Your task to perform on an android device: turn off location Image 0: 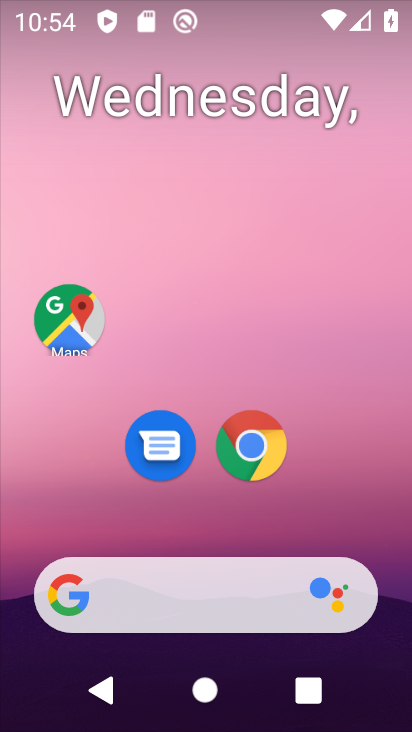
Step 0: drag from (354, 476) to (327, 96)
Your task to perform on an android device: turn off location Image 1: 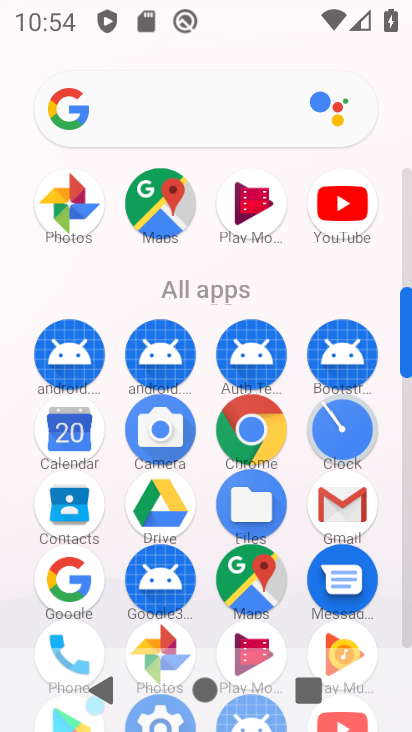
Step 1: drag from (382, 458) to (398, 305)
Your task to perform on an android device: turn off location Image 2: 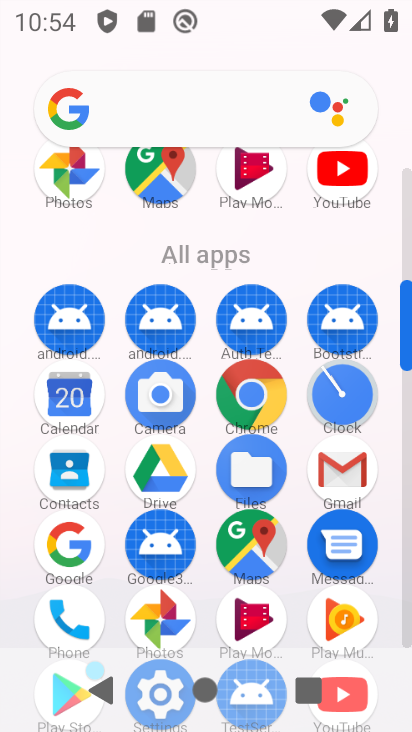
Step 2: drag from (375, 468) to (369, 197)
Your task to perform on an android device: turn off location Image 3: 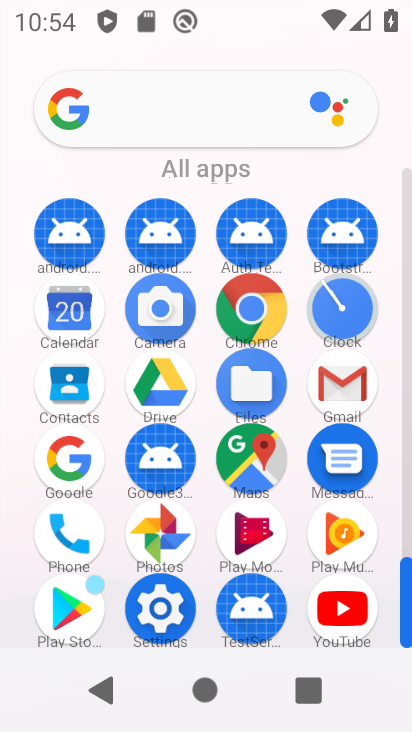
Step 3: click (173, 599)
Your task to perform on an android device: turn off location Image 4: 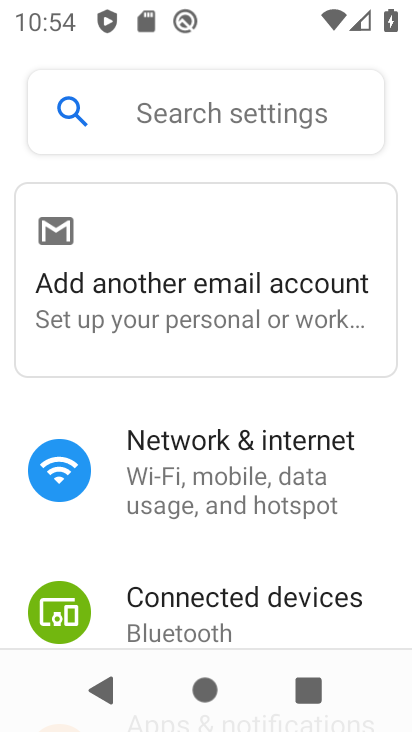
Step 4: drag from (221, 557) to (236, 241)
Your task to perform on an android device: turn off location Image 5: 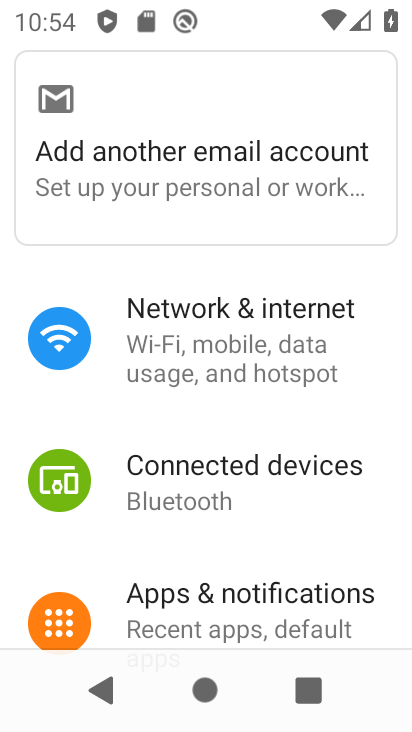
Step 5: drag from (212, 548) to (223, 281)
Your task to perform on an android device: turn off location Image 6: 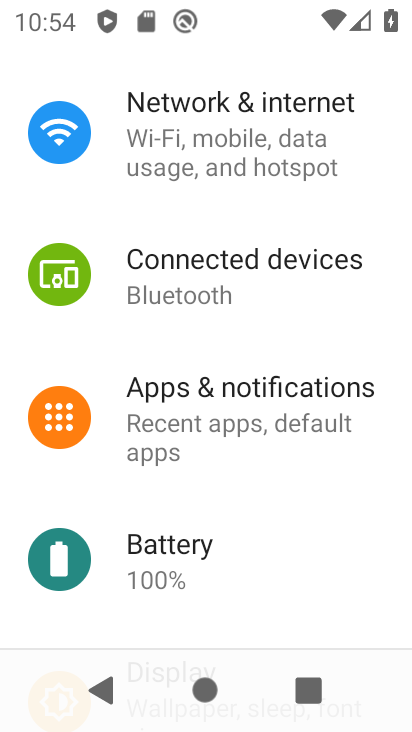
Step 6: drag from (234, 578) to (226, 254)
Your task to perform on an android device: turn off location Image 7: 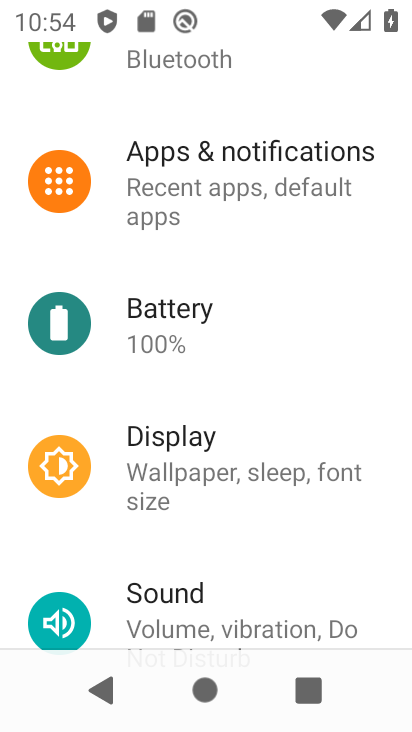
Step 7: drag from (224, 559) to (214, 278)
Your task to perform on an android device: turn off location Image 8: 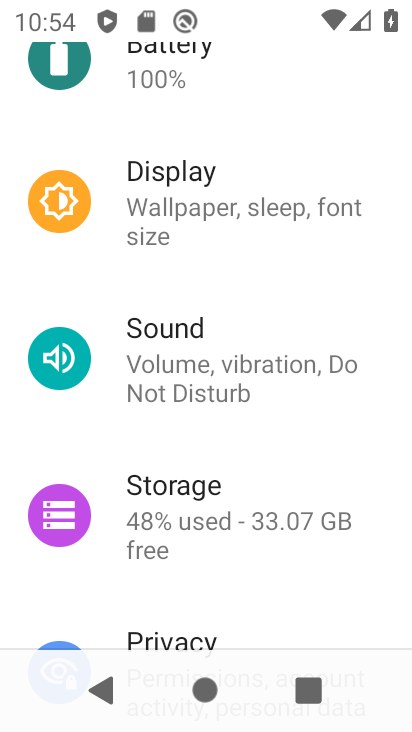
Step 8: drag from (255, 564) to (219, 282)
Your task to perform on an android device: turn off location Image 9: 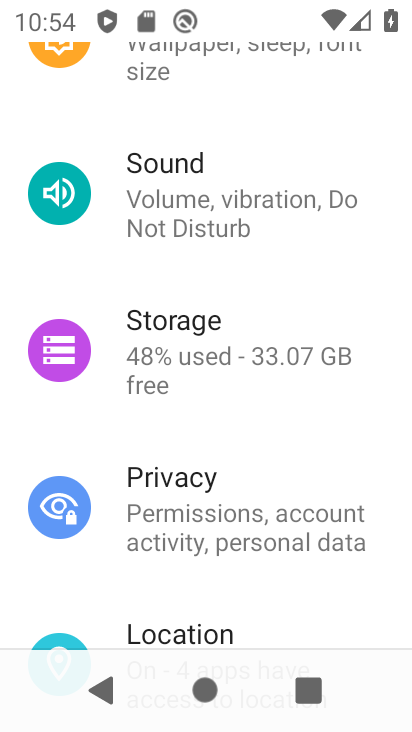
Step 9: drag from (233, 601) to (205, 297)
Your task to perform on an android device: turn off location Image 10: 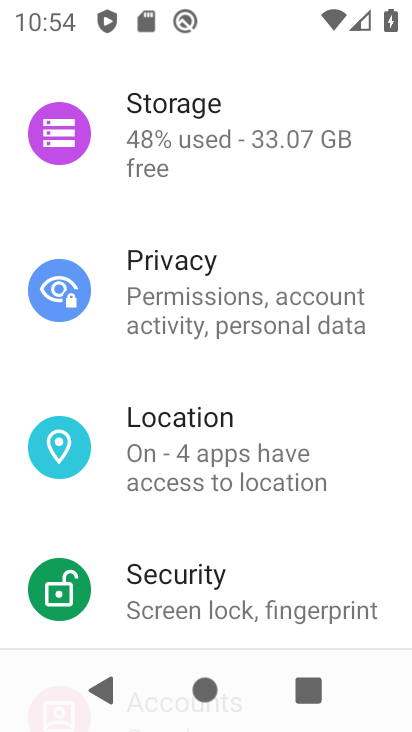
Step 10: click (200, 450)
Your task to perform on an android device: turn off location Image 11: 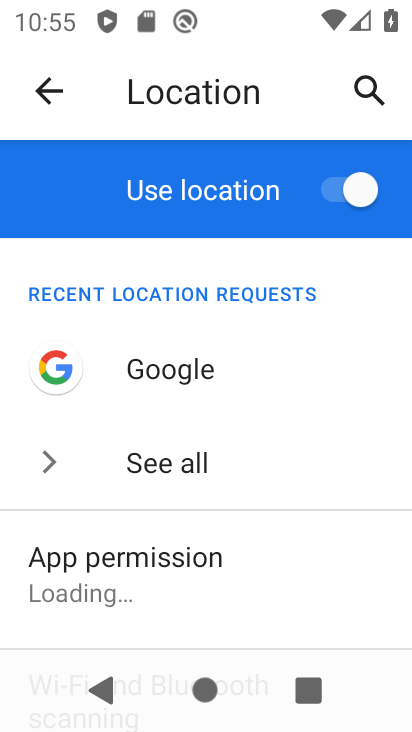
Step 11: drag from (246, 572) to (238, 367)
Your task to perform on an android device: turn off location Image 12: 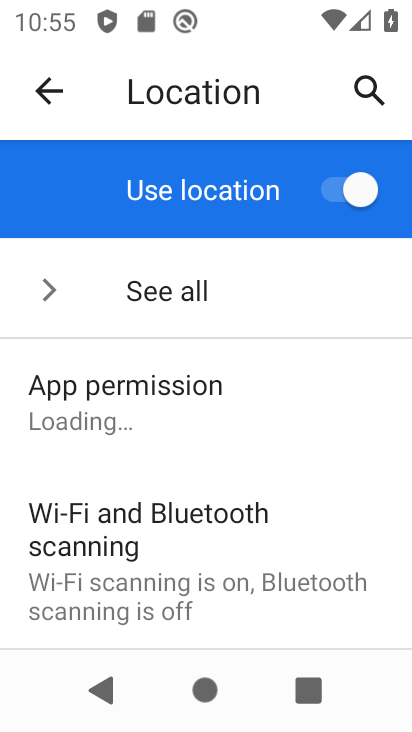
Step 12: click (347, 180)
Your task to perform on an android device: turn off location Image 13: 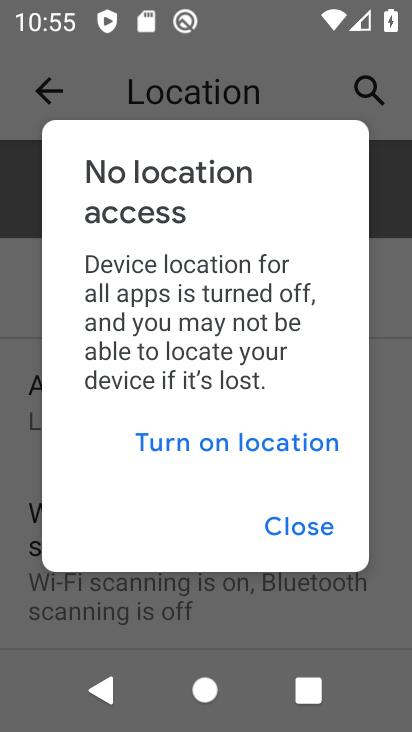
Step 13: task complete